Your task to perform on an android device: Open accessibility settings Image 0: 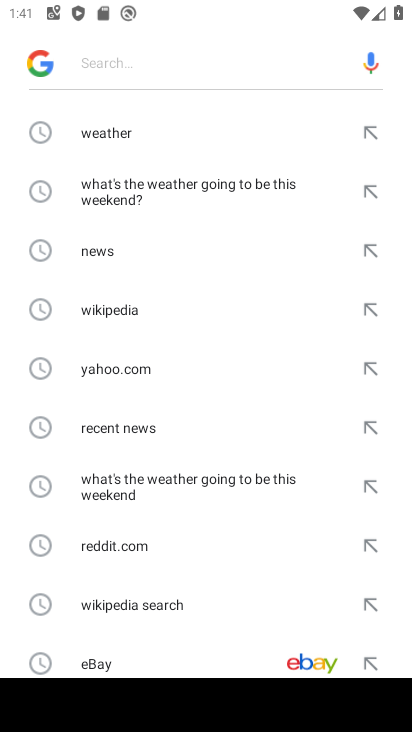
Step 0: press home button
Your task to perform on an android device: Open accessibility settings Image 1: 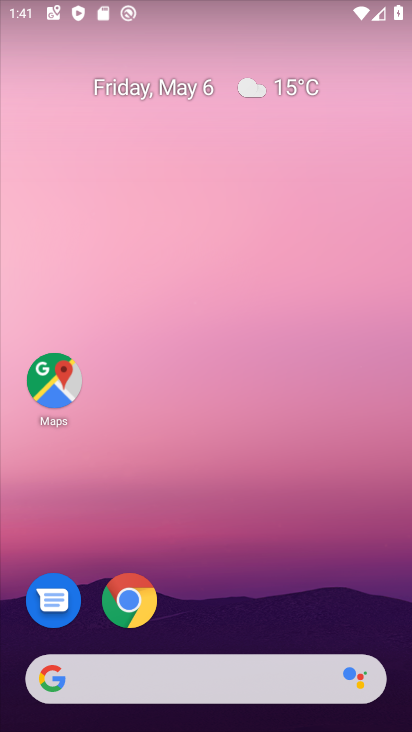
Step 1: drag from (341, 615) to (334, 65)
Your task to perform on an android device: Open accessibility settings Image 2: 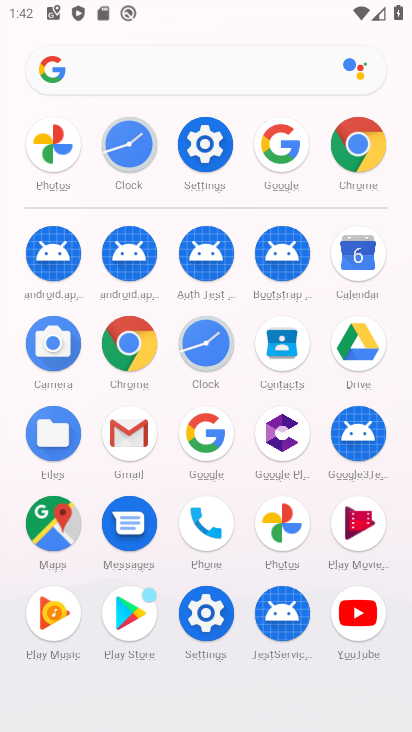
Step 2: click (219, 620)
Your task to perform on an android device: Open accessibility settings Image 3: 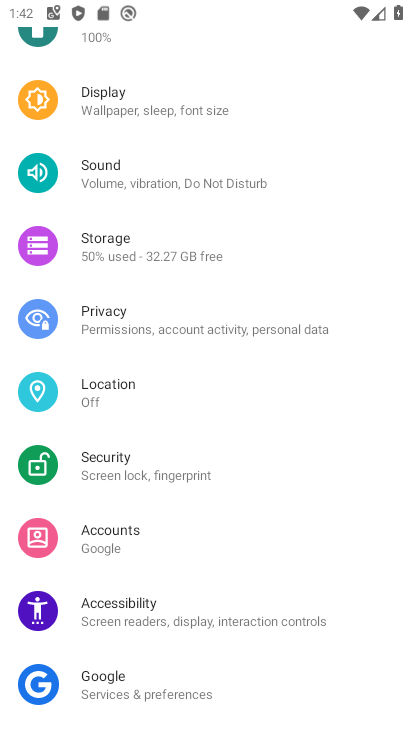
Step 3: click (219, 611)
Your task to perform on an android device: Open accessibility settings Image 4: 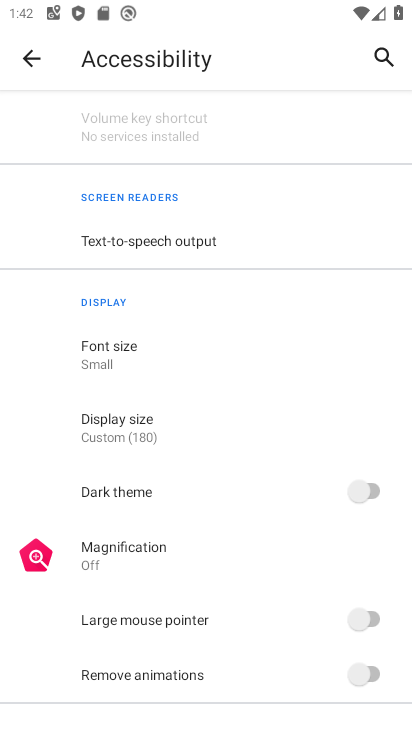
Step 4: task complete